Your task to perform on an android device: Open location settings Image 0: 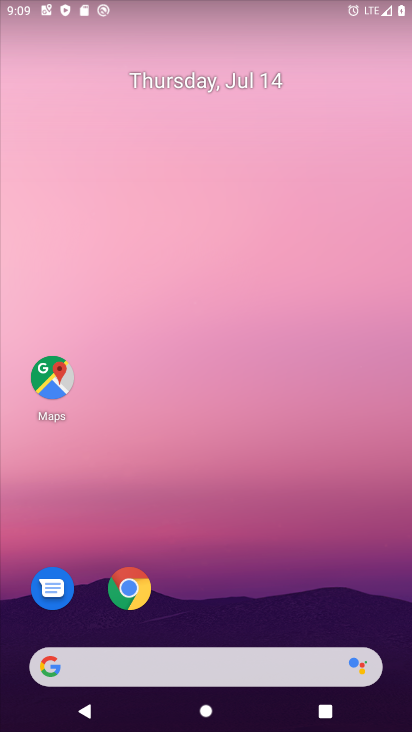
Step 0: drag from (233, 588) to (294, 77)
Your task to perform on an android device: Open location settings Image 1: 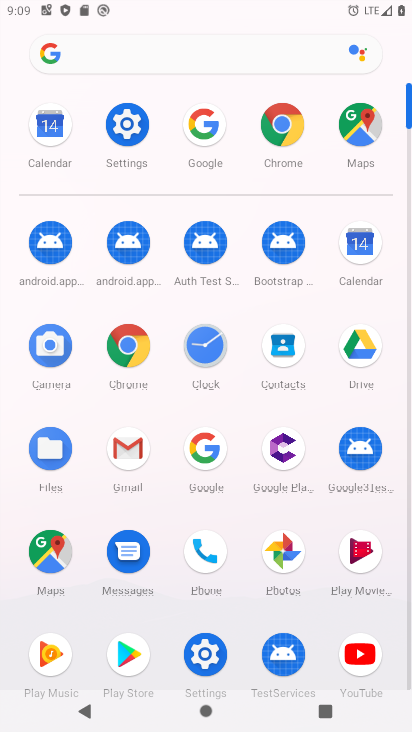
Step 1: click (130, 110)
Your task to perform on an android device: Open location settings Image 2: 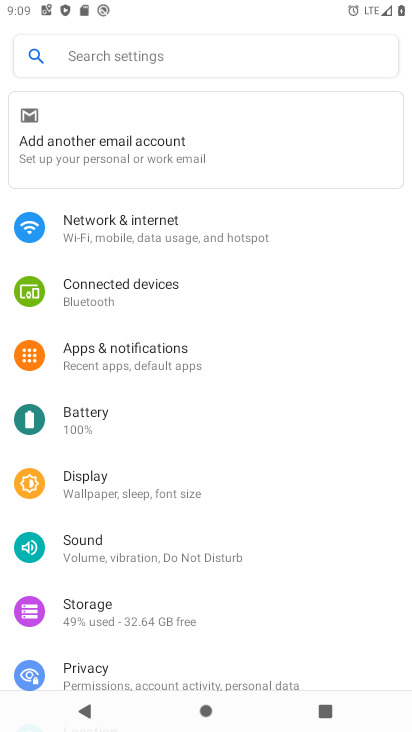
Step 2: drag from (103, 594) to (145, 211)
Your task to perform on an android device: Open location settings Image 3: 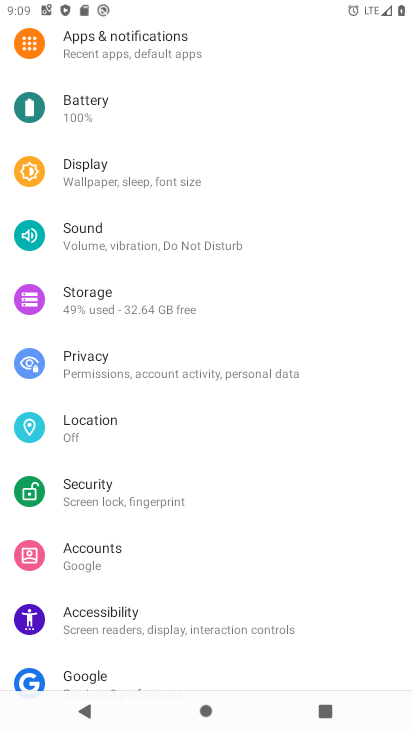
Step 3: click (131, 426)
Your task to perform on an android device: Open location settings Image 4: 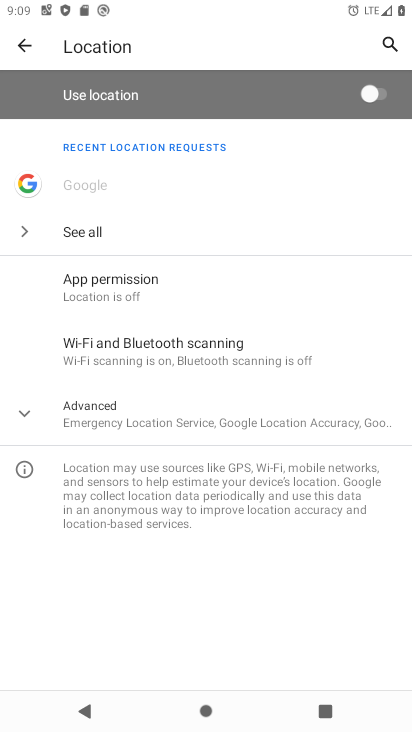
Step 4: task complete